Your task to perform on an android device: Go to Yahoo.com Image 0: 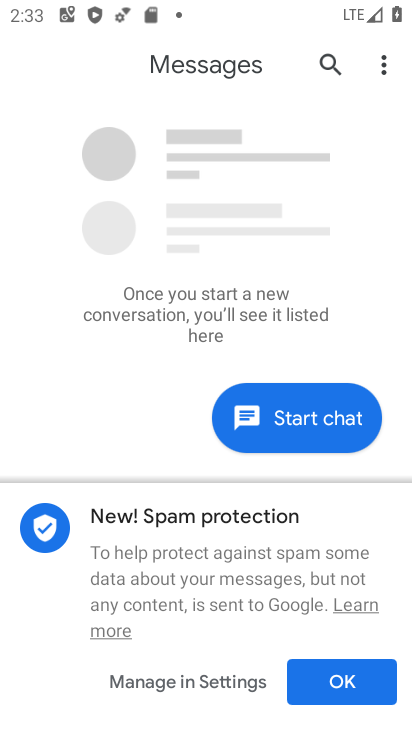
Step 0: press home button
Your task to perform on an android device: Go to Yahoo.com Image 1: 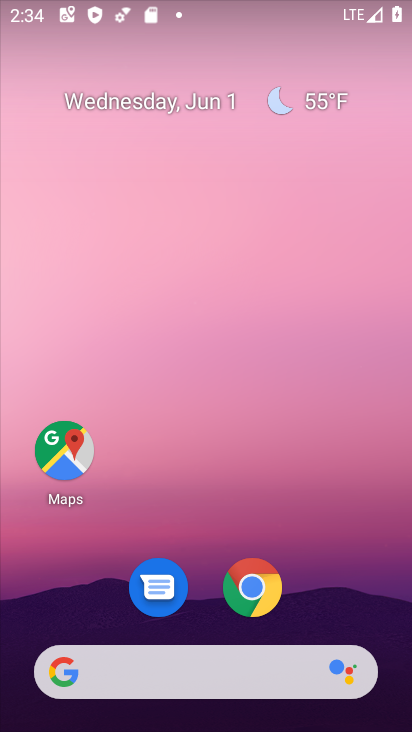
Step 1: click (254, 594)
Your task to perform on an android device: Go to Yahoo.com Image 2: 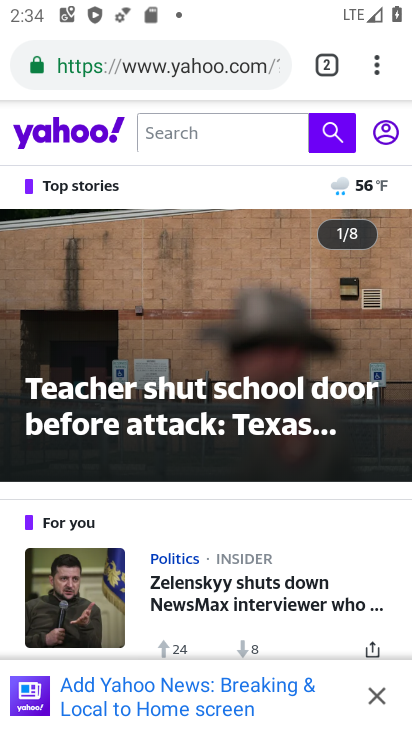
Step 2: task complete